Your task to perform on an android device: Check the weather Image 0: 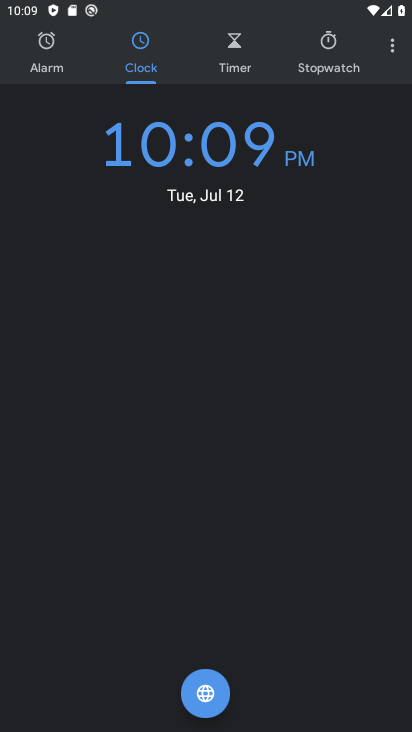
Step 0: press home button
Your task to perform on an android device: Check the weather Image 1: 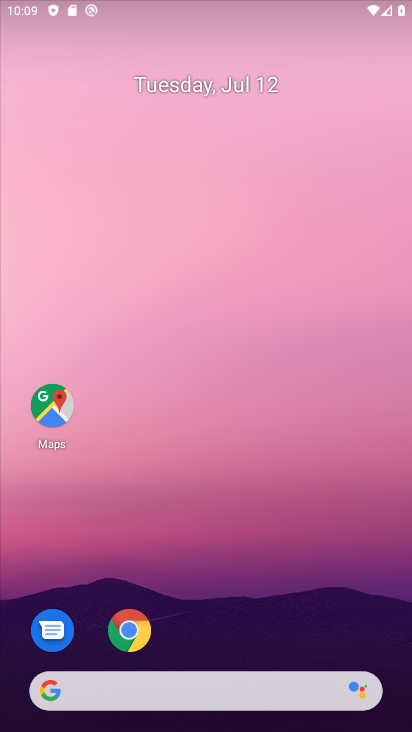
Step 1: drag from (222, 637) to (274, 105)
Your task to perform on an android device: Check the weather Image 2: 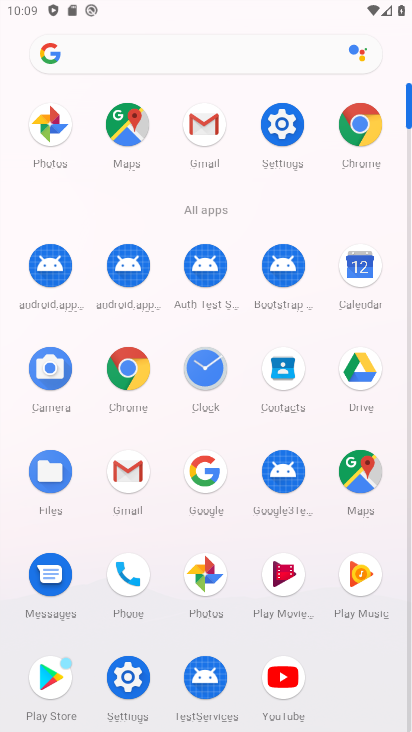
Step 2: click (205, 472)
Your task to perform on an android device: Check the weather Image 3: 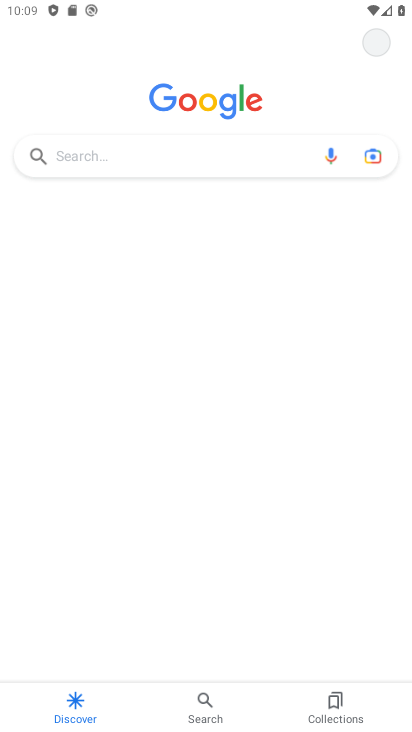
Step 3: click (146, 159)
Your task to perform on an android device: Check the weather Image 4: 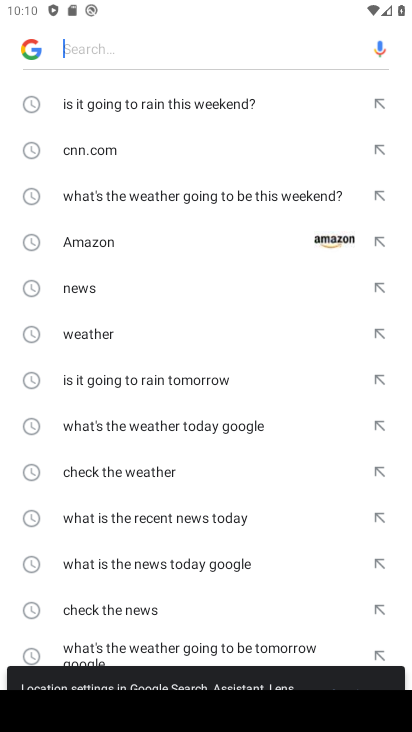
Step 4: click (125, 333)
Your task to perform on an android device: Check the weather Image 5: 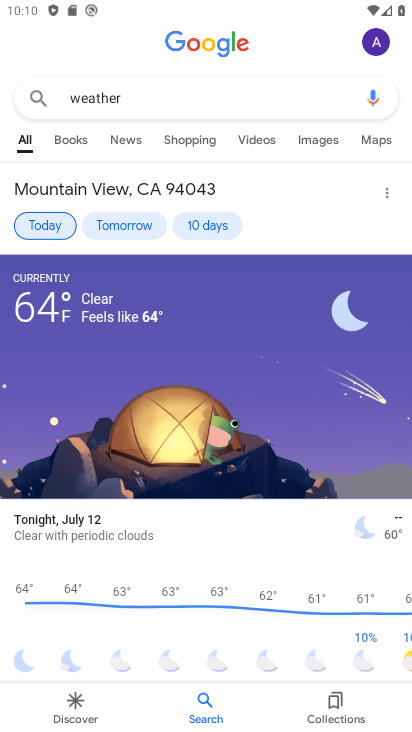
Step 5: task complete